Your task to perform on an android device: change the clock display to analog Image 0: 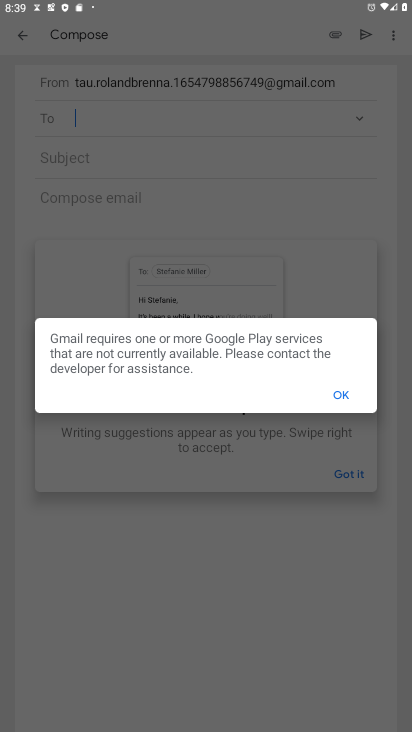
Step 0: press home button
Your task to perform on an android device: change the clock display to analog Image 1: 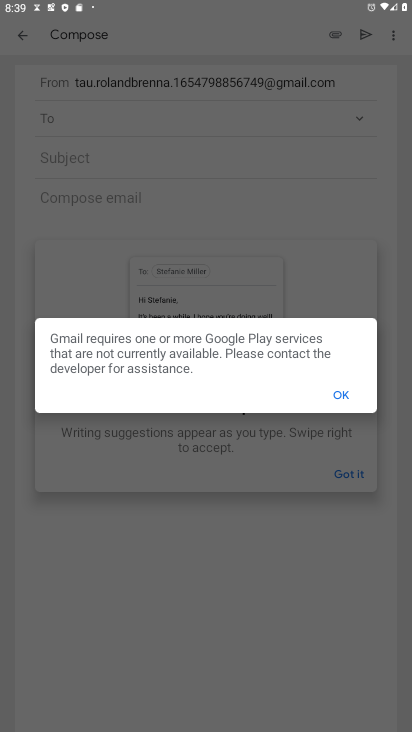
Step 1: drag from (238, 331) to (257, 217)
Your task to perform on an android device: change the clock display to analog Image 2: 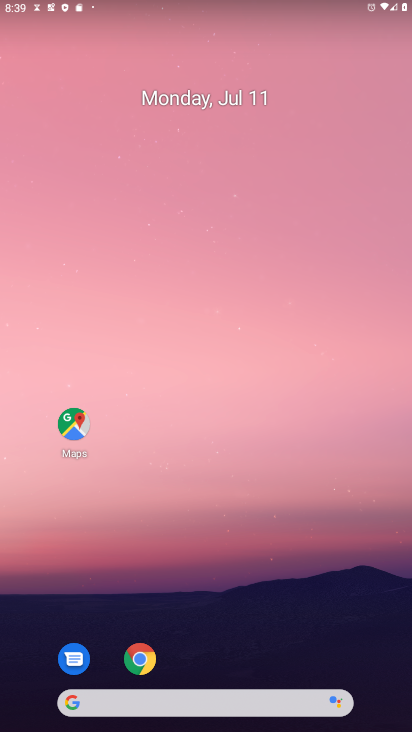
Step 2: drag from (198, 573) to (393, 98)
Your task to perform on an android device: change the clock display to analog Image 3: 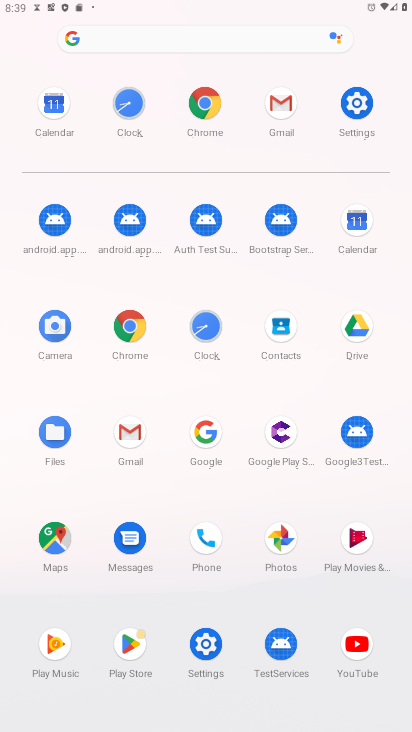
Step 3: click (210, 324)
Your task to perform on an android device: change the clock display to analog Image 4: 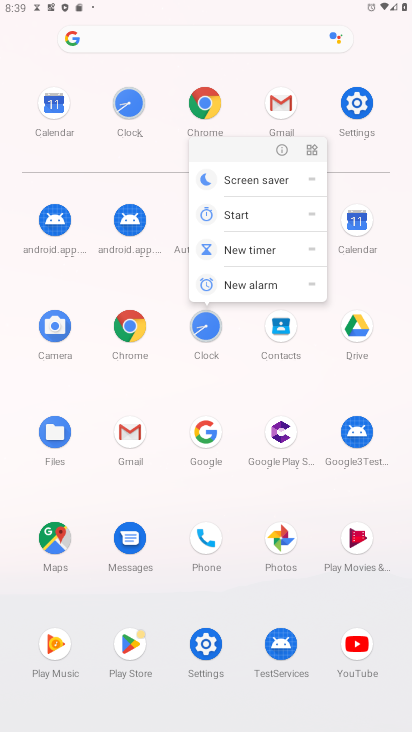
Step 4: click (278, 148)
Your task to perform on an android device: change the clock display to analog Image 5: 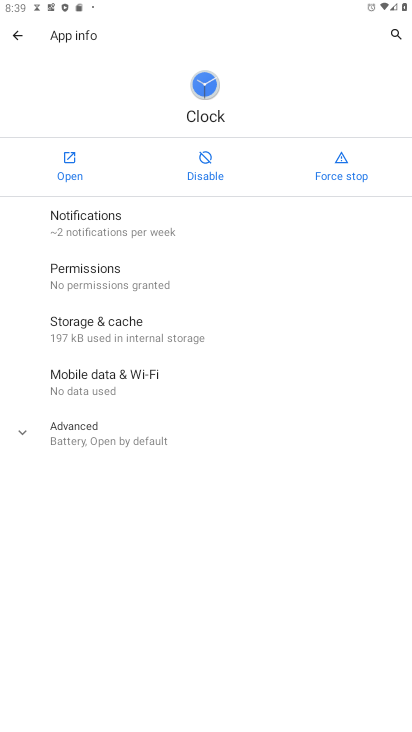
Step 5: click (73, 170)
Your task to perform on an android device: change the clock display to analog Image 6: 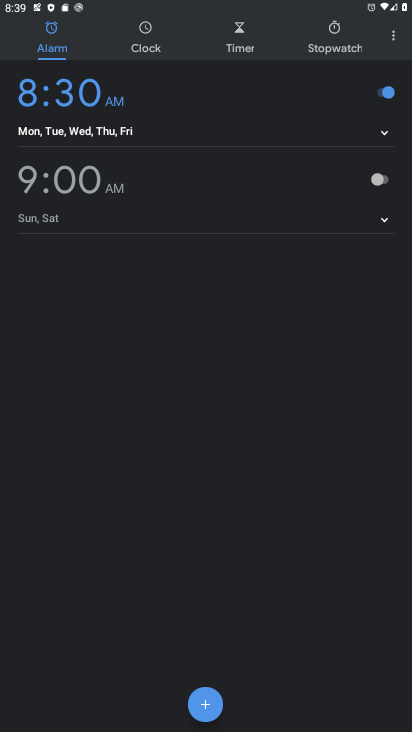
Step 6: click (400, 36)
Your task to perform on an android device: change the clock display to analog Image 7: 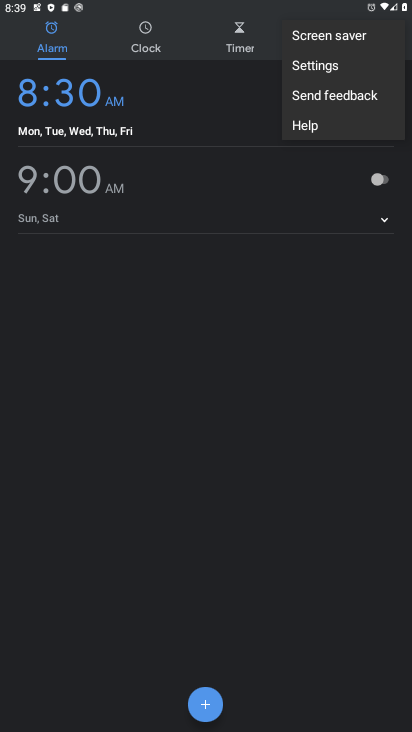
Step 7: click (308, 62)
Your task to perform on an android device: change the clock display to analog Image 8: 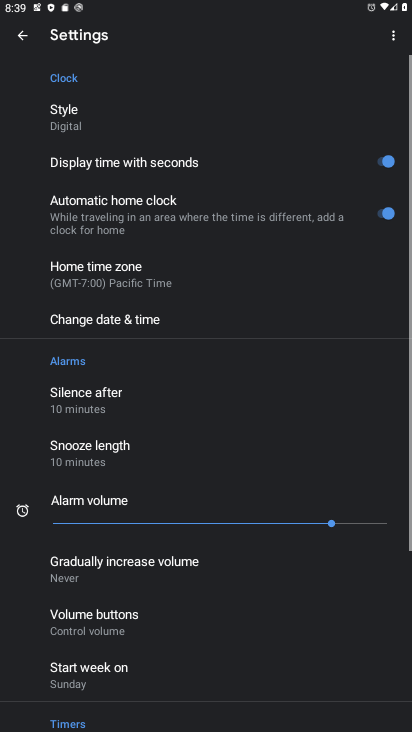
Step 8: click (112, 122)
Your task to perform on an android device: change the clock display to analog Image 9: 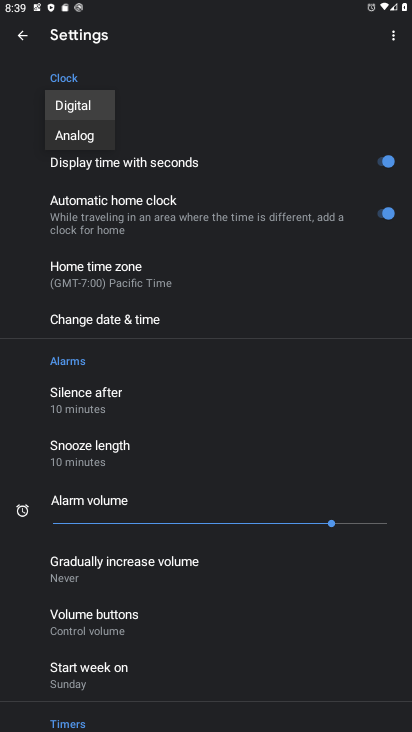
Step 9: click (81, 140)
Your task to perform on an android device: change the clock display to analog Image 10: 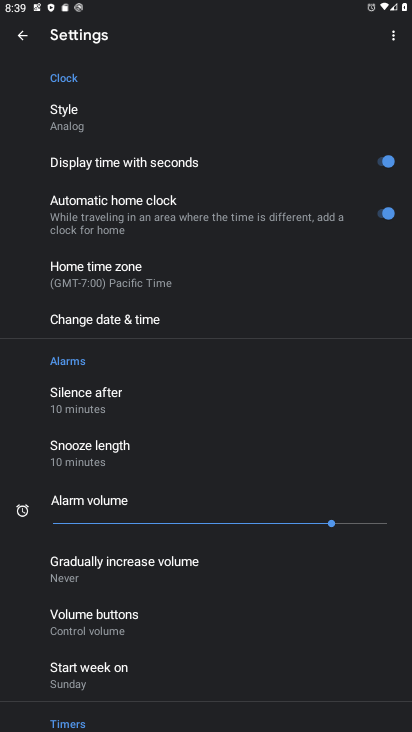
Step 10: drag from (175, 563) to (238, 293)
Your task to perform on an android device: change the clock display to analog Image 11: 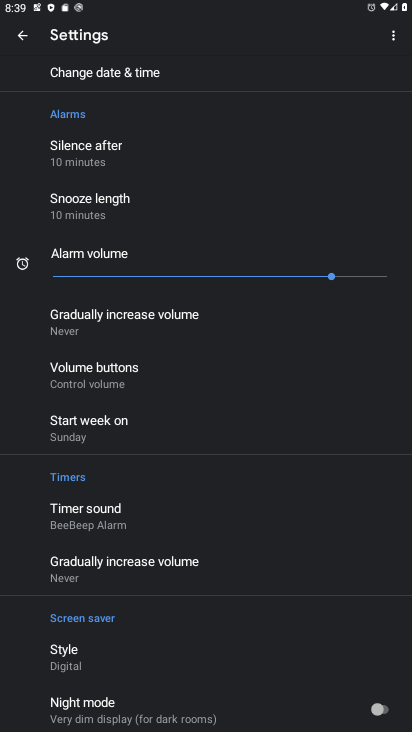
Step 11: drag from (239, 651) to (175, 203)
Your task to perform on an android device: change the clock display to analog Image 12: 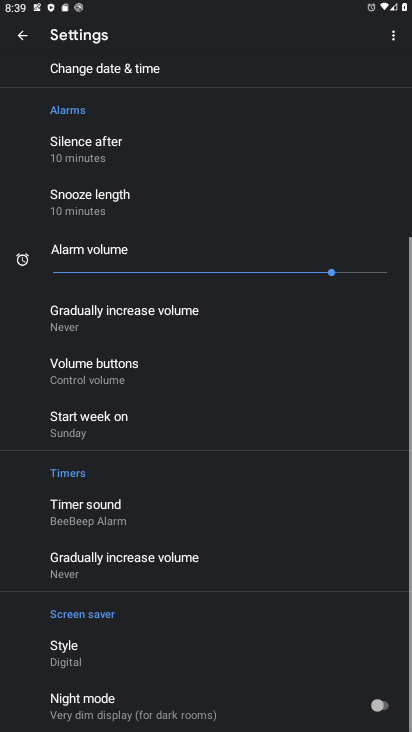
Step 12: drag from (128, 28) to (272, 660)
Your task to perform on an android device: change the clock display to analog Image 13: 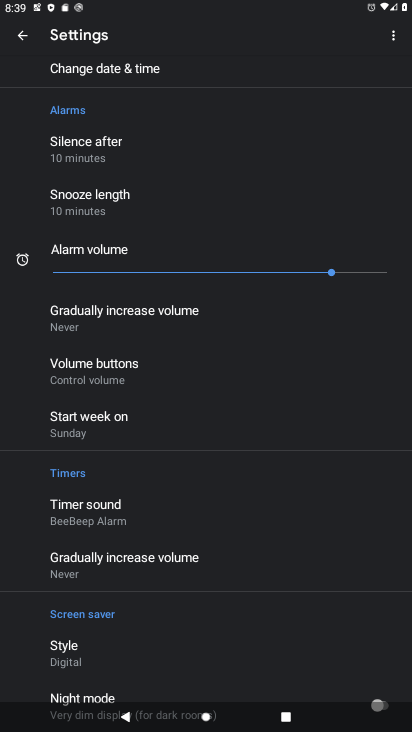
Step 13: drag from (222, 196) to (231, 725)
Your task to perform on an android device: change the clock display to analog Image 14: 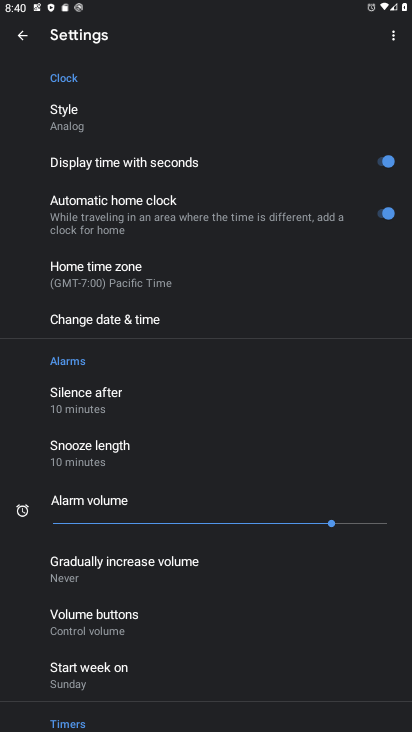
Step 14: drag from (218, 609) to (232, 255)
Your task to perform on an android device: change the clock display to analog Image 15: 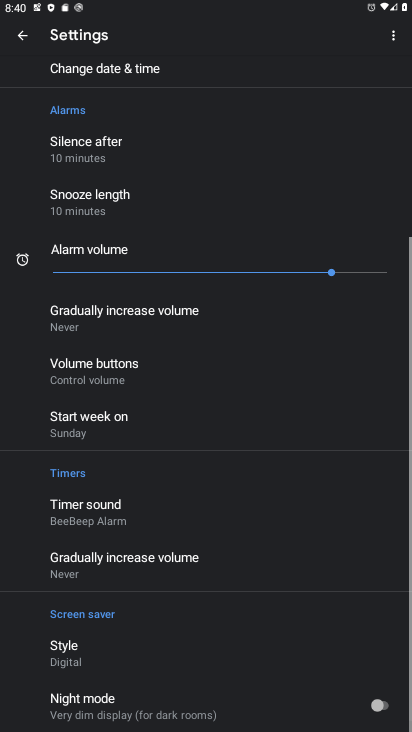
Step 15: drag from (237, 194) to (252, 728)
Your task to perform on an android device: change the clock display to analog Image 16: 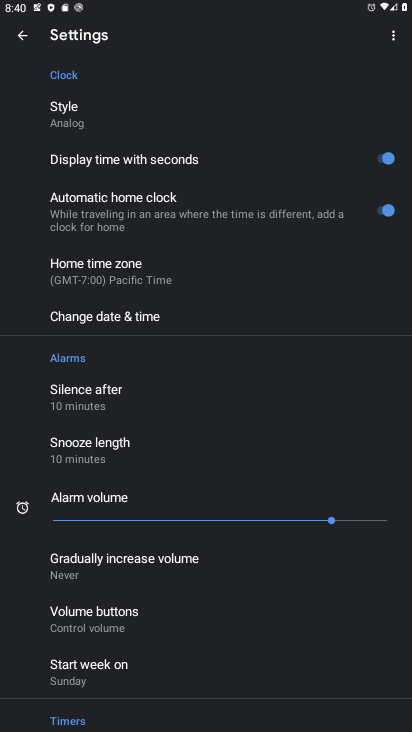
Step 16: drag from (236, 543) to (308, 230)
Your task to perform on an android device: change the clock display to analog Image 17: 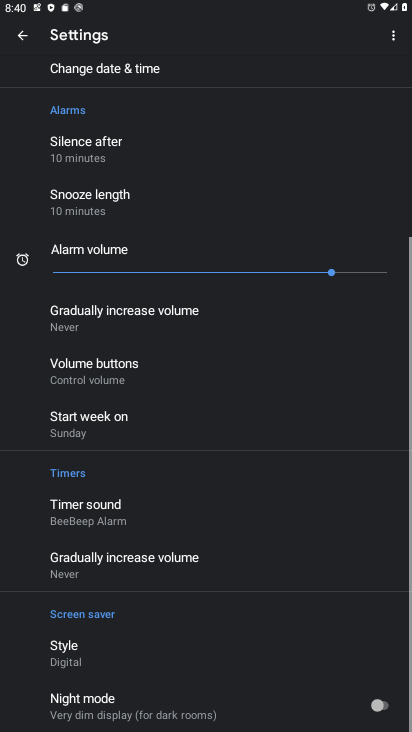
Step 17: drag from (252, 199) to (238, 728)
Your task to perform on an android device: change the clock display to analog Image 18: 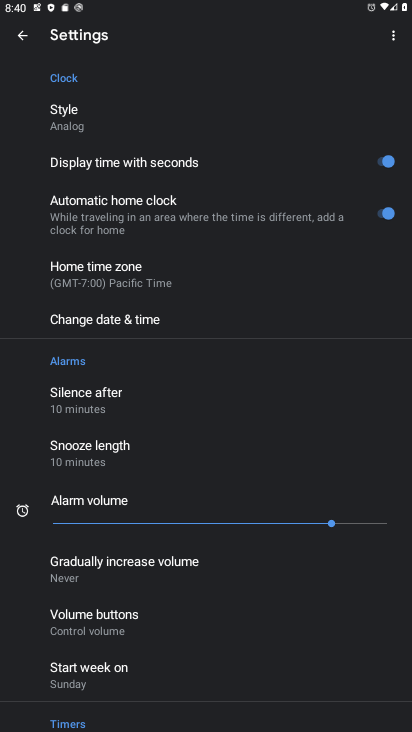
Step 18: click (99, 106)
Your task to perform on an android device: change the clock display to analog Image 19: 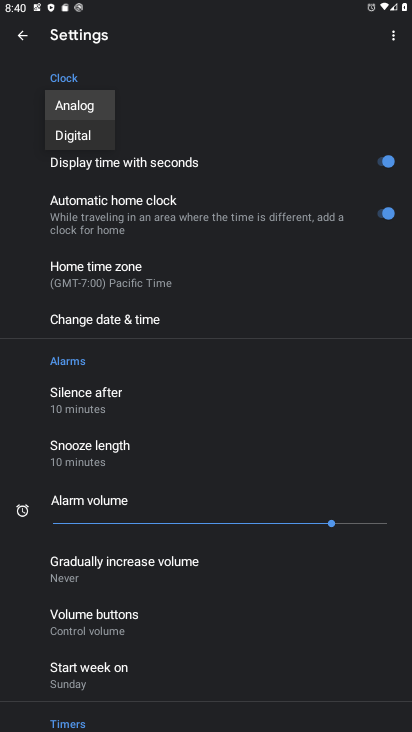
Step 19: click (189, 81)
Your task to perform on an android device: change the clock display to analog Image 20: 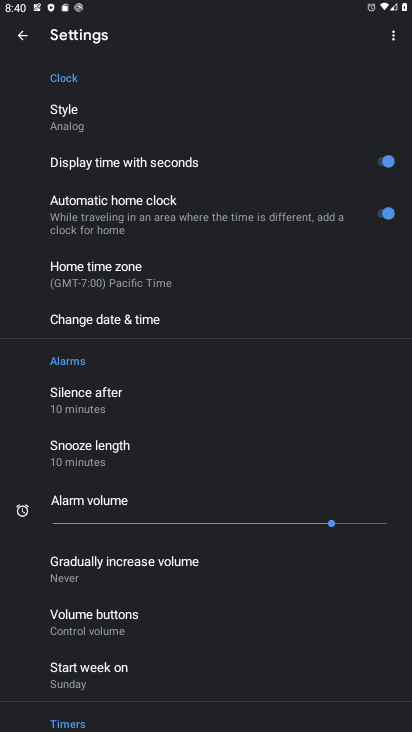
Step 20: task complete